Your task to perform on an android device: change your default location settings in chrome Image 0: 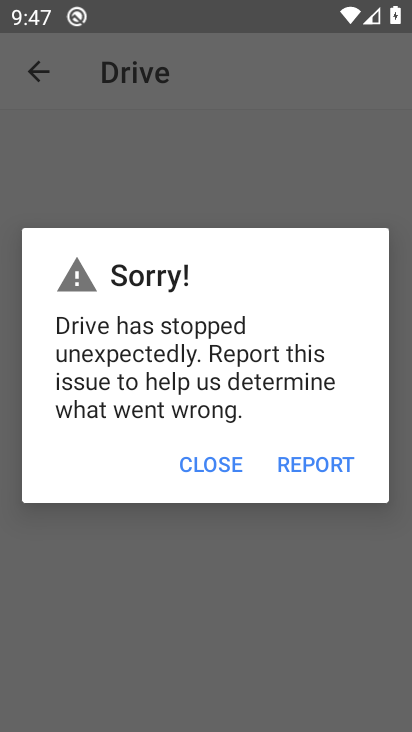
Step 0: press home button
Your task to perform on an android device: change your default location settings in chrome Image 1: 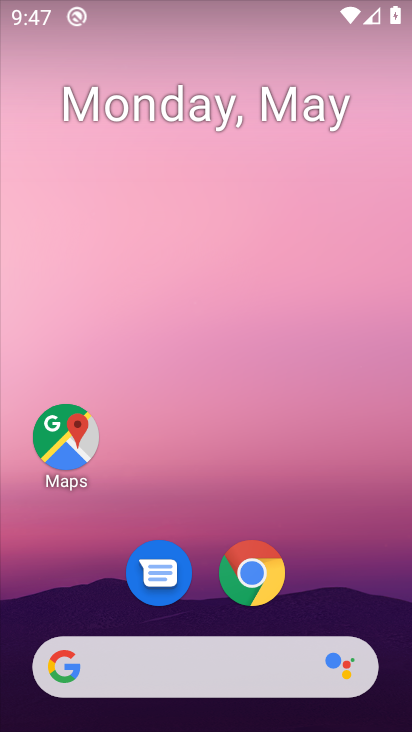
Step 1: drag from (193, 493) to (230, 65)
Your task to perform on an android device: change your default location settings in chrome Image 2: 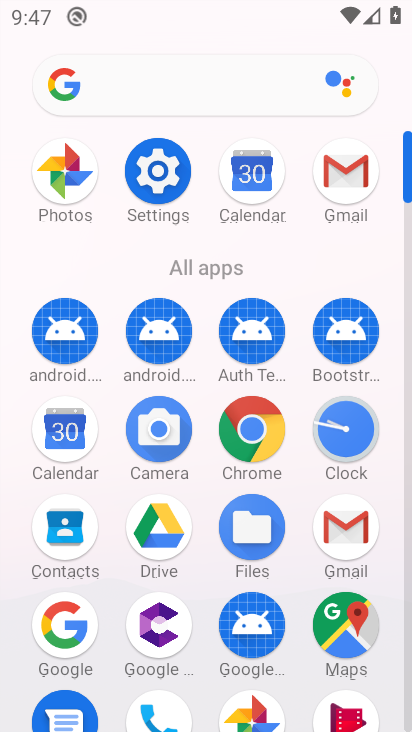
Step 2: click (260, 425)
Your task to perform on an android device: change your default location settings in chrome Image 3: 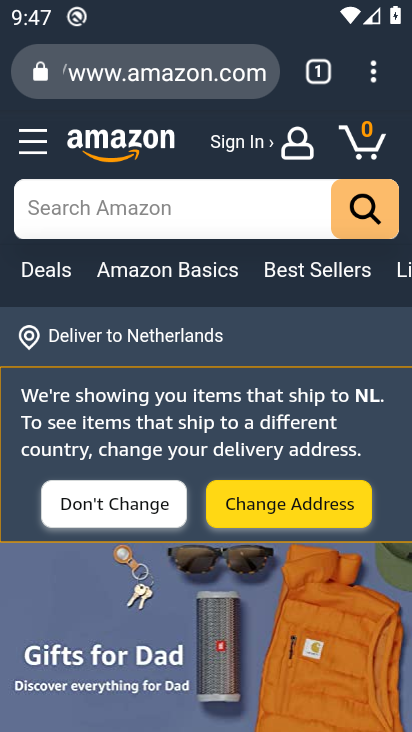
Step 3: drag from (368, 83) to (146, 570)
Your task to perform on an android device: change your default location settings in chrome Image 4: 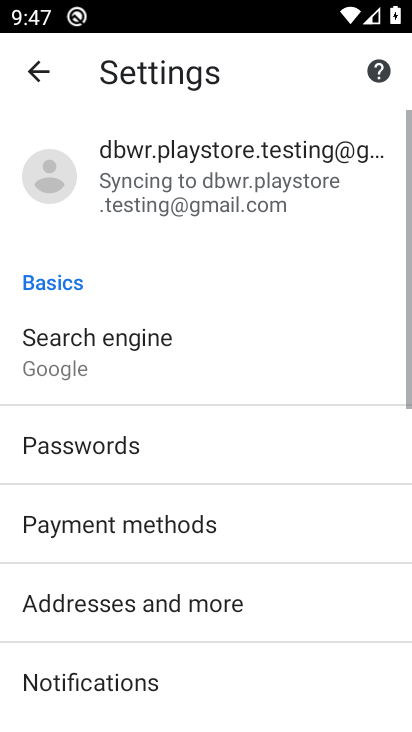
Step 4: drag from (161, 555) to (242, 68)
Your task to perform on an android device: change your default location settings in chrome Image 5: 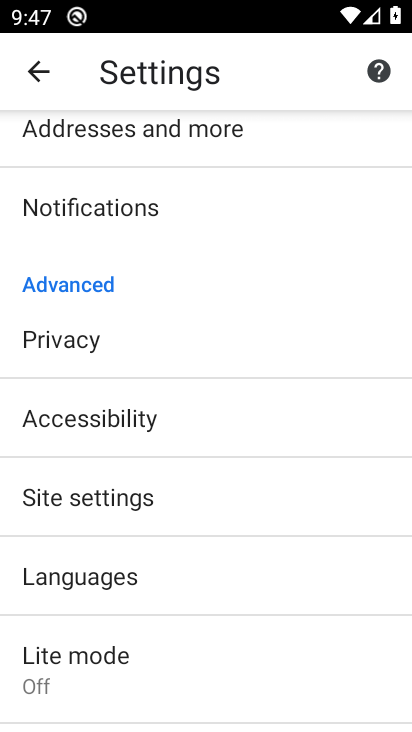
Step 5: drag from (158, 655) to (232, 397)
Your task to perform on an android device: change your default location settings in chrome Image 6: 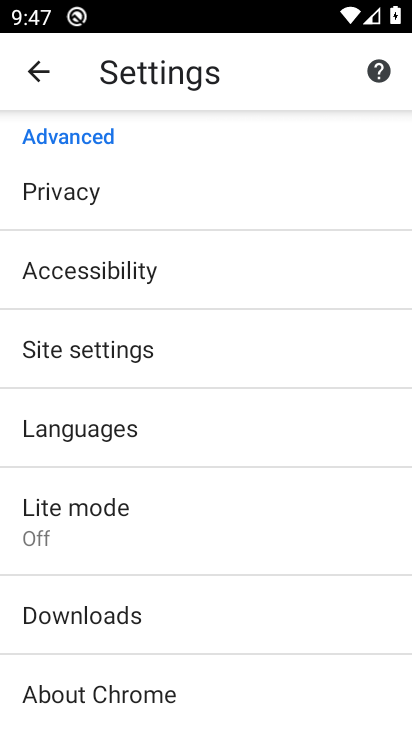
Step 6: click (98, 348)
Your task to perform on an android device: change your default location settings in chrome Image 7: 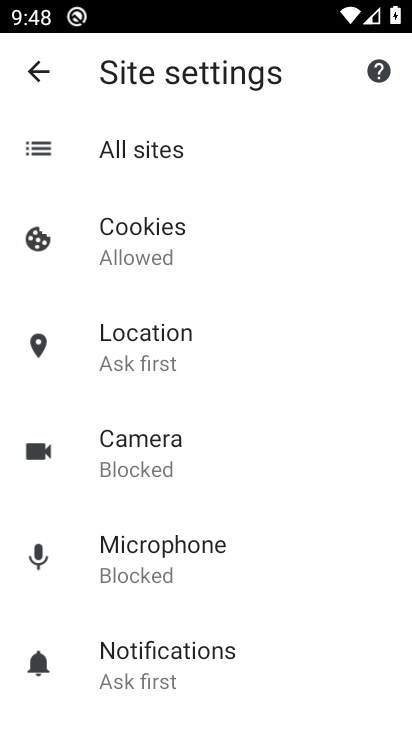
Step 7: click (237, 349)
Your task to perform on an android device: change your default location settings in chrome Image 8: 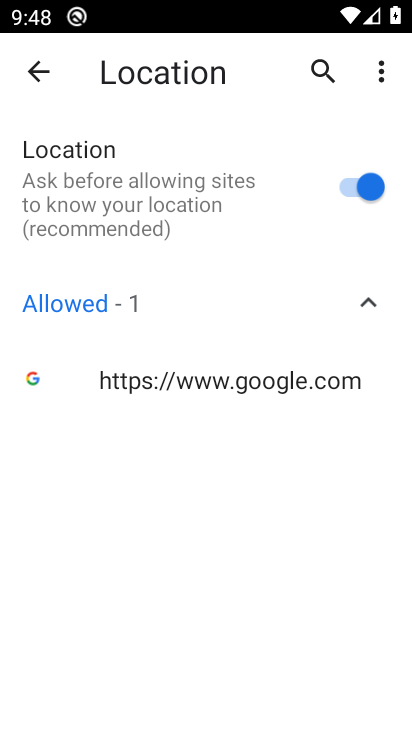
Step 8: click (362, 184)
Your task to perform on an android device: change your default location settings in chrome Image 9: 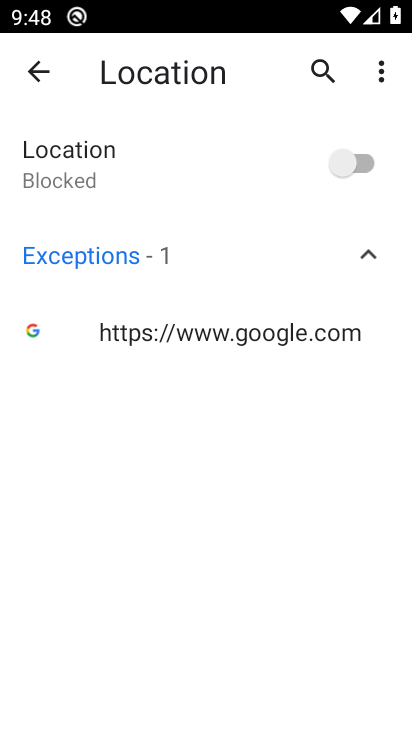
Step 9: task complete